Your task to perform on an android device: Go to CNN.com Image 0: 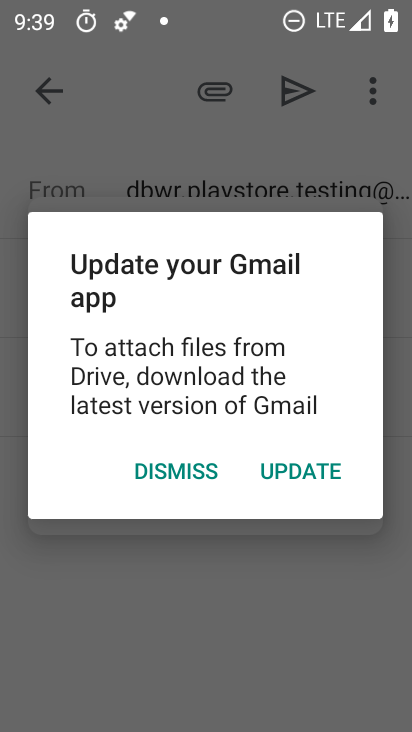
Step 0: press home button
Your task to perform on an android device: Go to CNN.com Image 1: 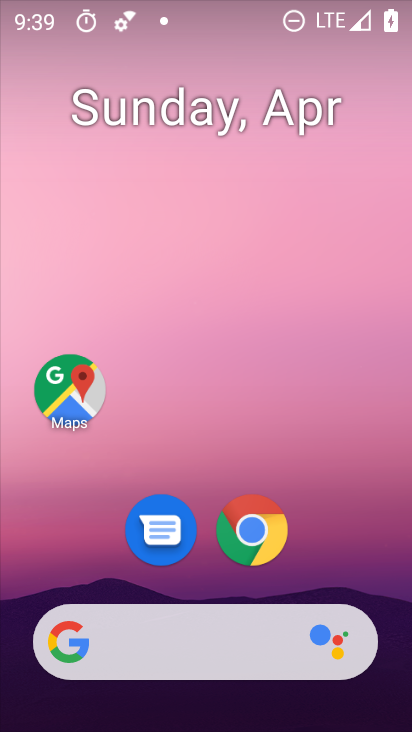
Step 1: click (255, 539)
Your task to perform on an android device: Go to CNN.com Image 2: 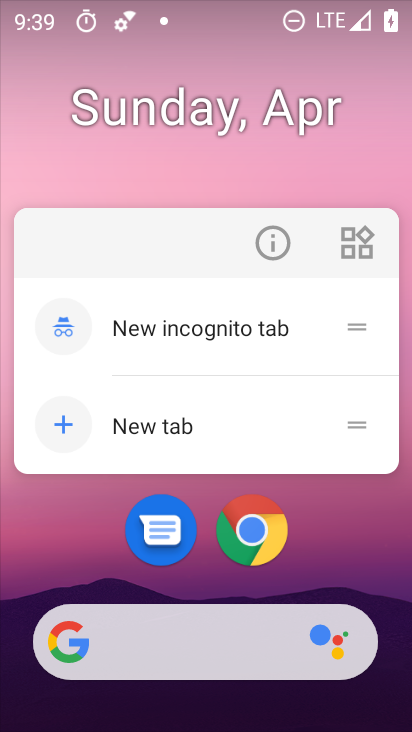
Step 2: click (251, 544)
Your task to perform on an android device: Go to CNN.com Image 3: 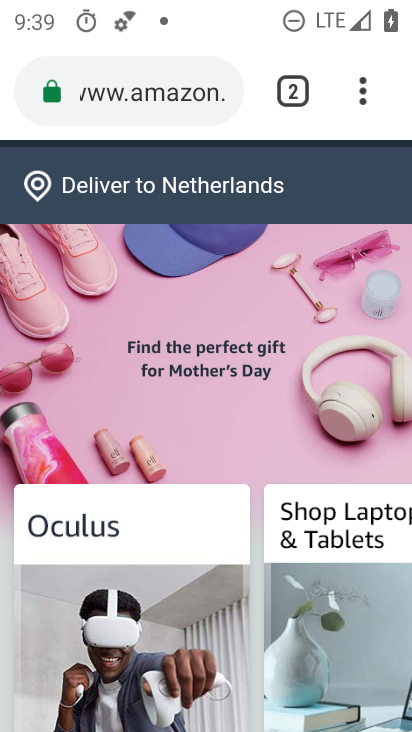
Step 3: click (162, 95)
Your task to perform on an android device: Go to CNN.com Image 4: 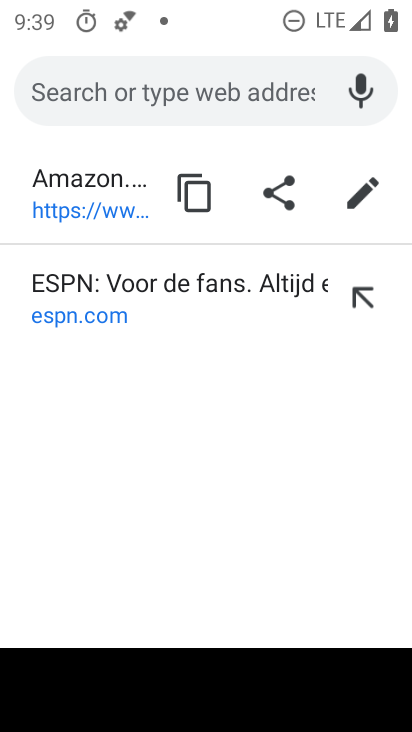
Step 4: type "cnn.com"
Your task to perform on an android device: Go to CNN.com Image 5: 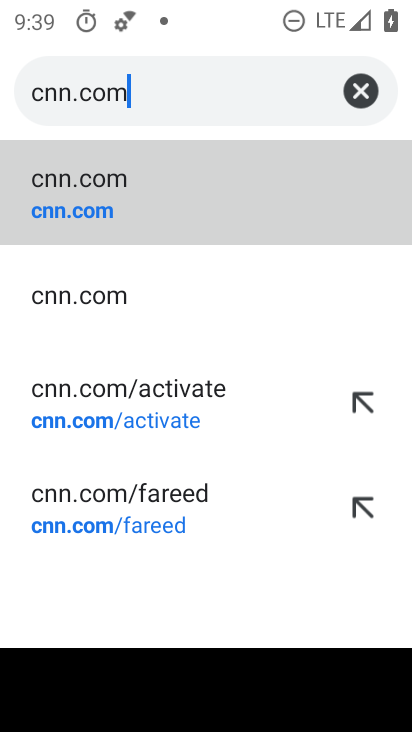
Step 5: click (46, 214)
Your task to perform on an android device: Go to CNN.com Image 6: 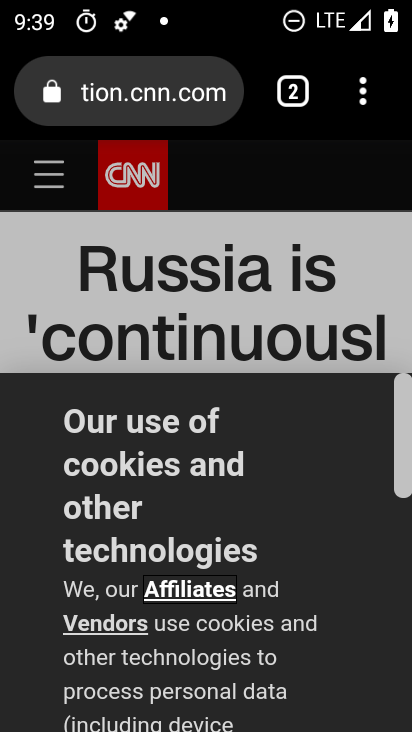
Step 6: task complete